Your task to perform on an android device: Go to CNN.com Image 0: 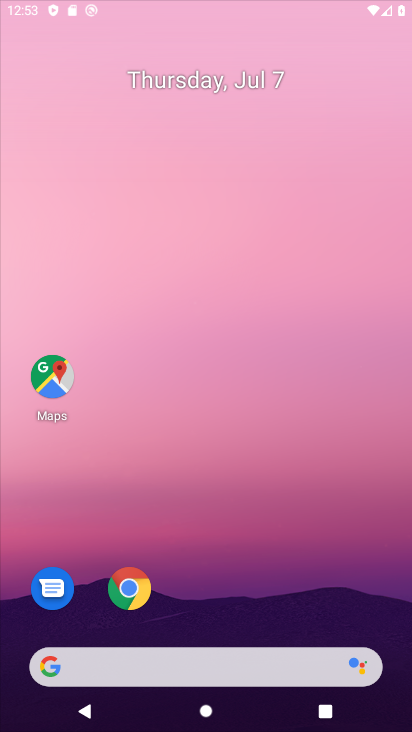
Step 0: drag from (287, 594) to (286, 385)
Your task to perform on an android device: Go to CNN.com Image 1: 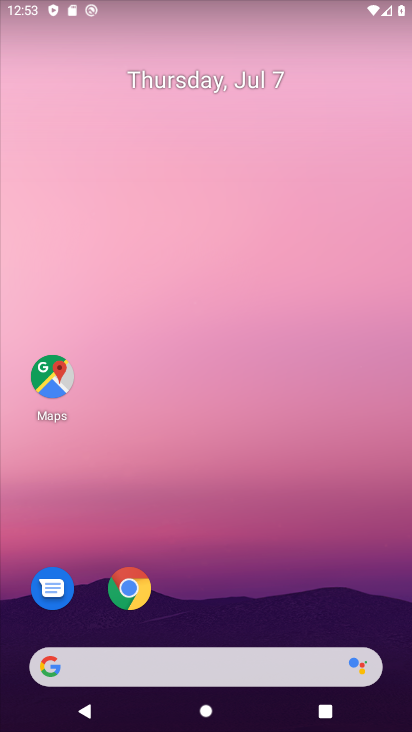
Step 1: drag from (231, 604) to (270, 236)
Your task to perform on an android device: Go to CNN.com Image 2: 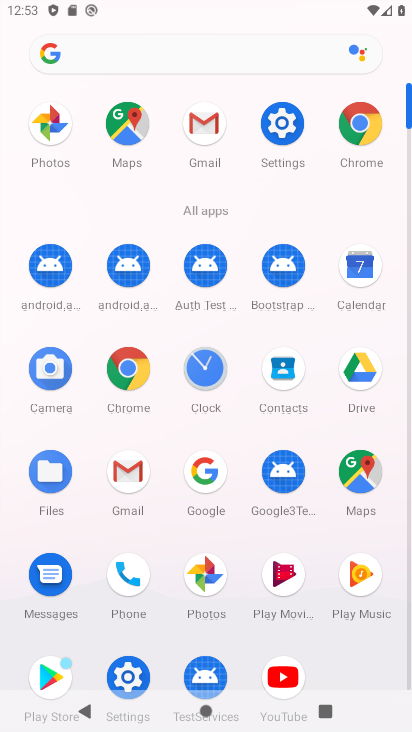
Step 2: click (134, 368)
Your task to perform on an android device: Go to CNN.com Image 3: 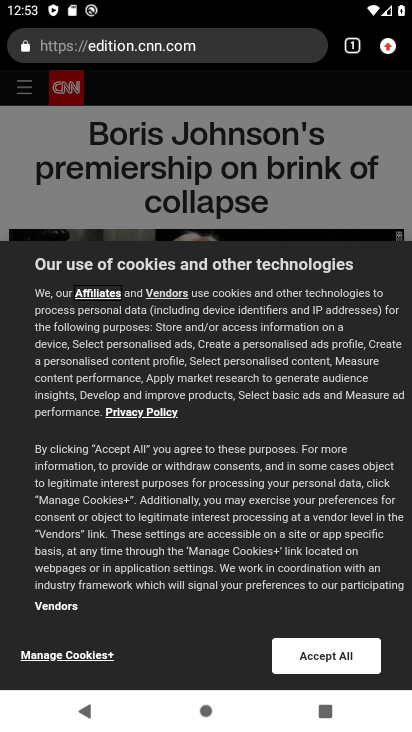
Step 3: task complete